Your task to perform on an android device: delete browsing data in the chrome app Image 0: 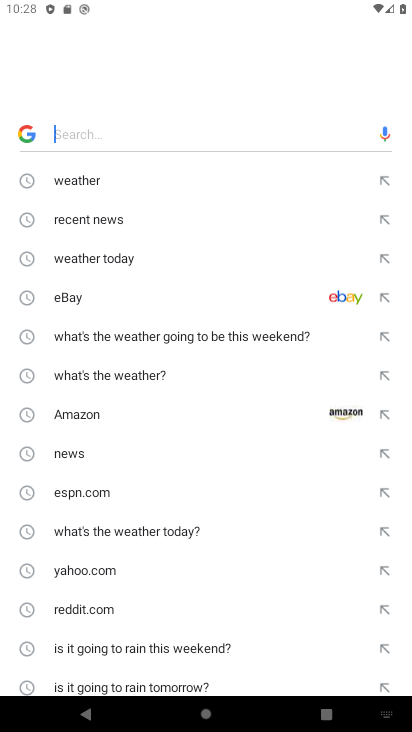
Step 0: press home button
Your task to perform on an android device: delete browsing data in the chrome app Image 1: 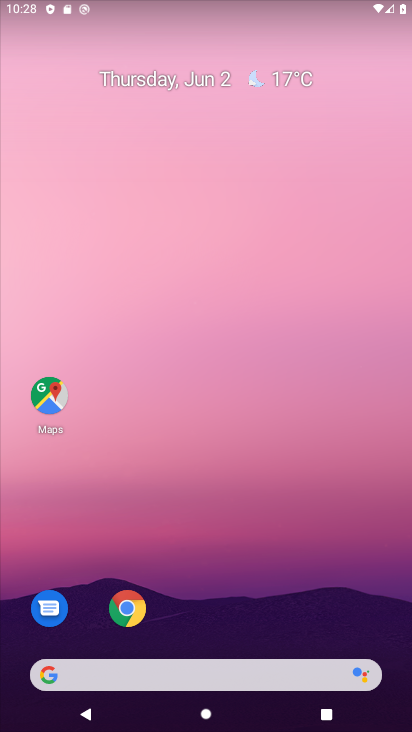
Step 1: click (128, 607)
Your task to perform on an android device: delete browsing data in the chrome app Image 2: 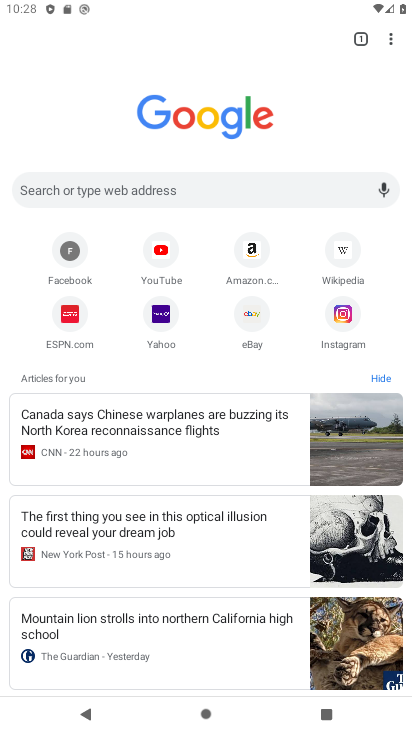
Step 2: click (386, 35)
Your task to perform on an android device: delete browsing data in the chrome app Image 3: 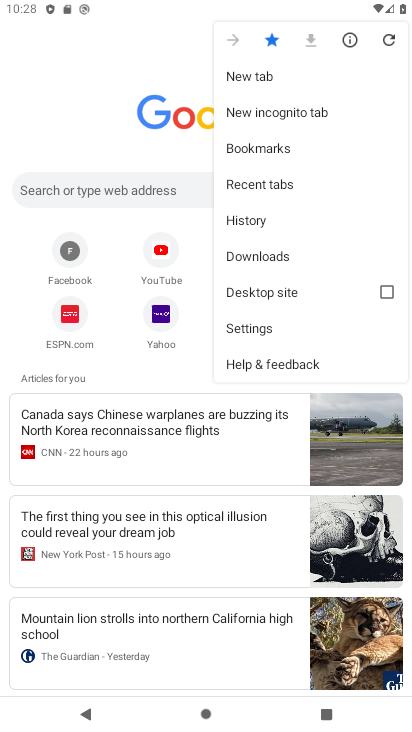
Step 3: click (238, 217)
Your task to perform on an android device: delete browsing data in the chrome app Image 4: 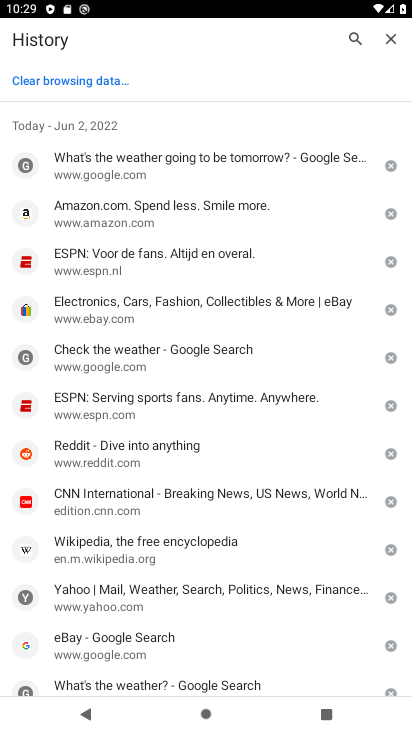
Step 4: click (84, 80)
Your task to perform on an android device: delete browsing data in the chrome app Image 5: 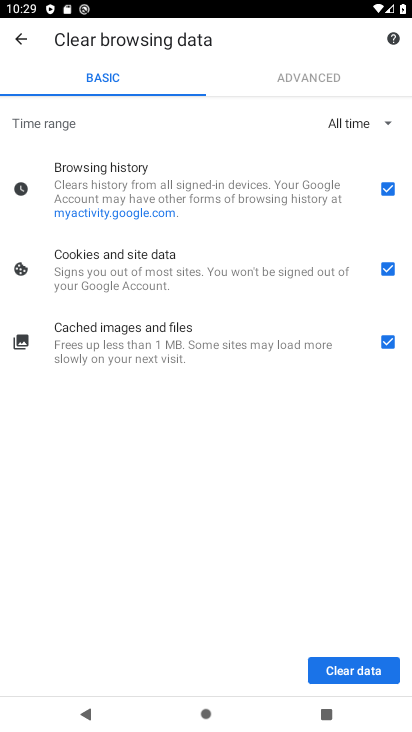
Step 5: click (352, 666)
Your task to perform on an android device: delete browsing data in the chrome app Image 6: 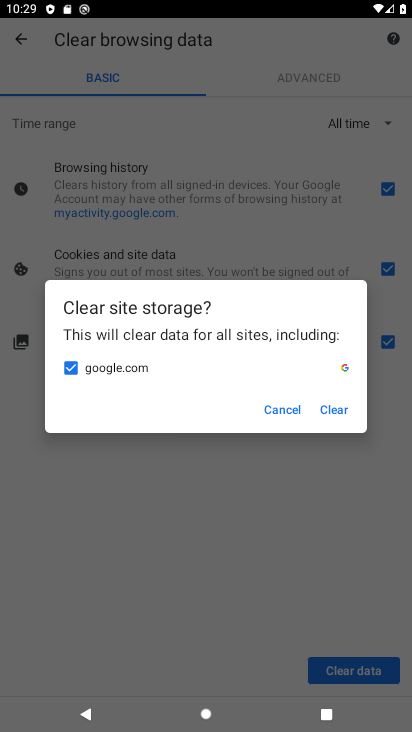
Step 6: click (330, 405)
Your task to perform on an android device: delete browsing data in the chrome app Image 7: 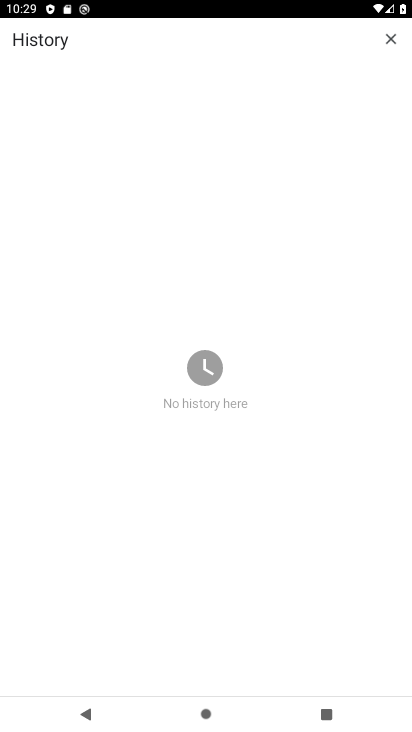
Step 7: click (394, 40)
Your task to perform on an android device: delete browsing data in the chrome app Image 8: 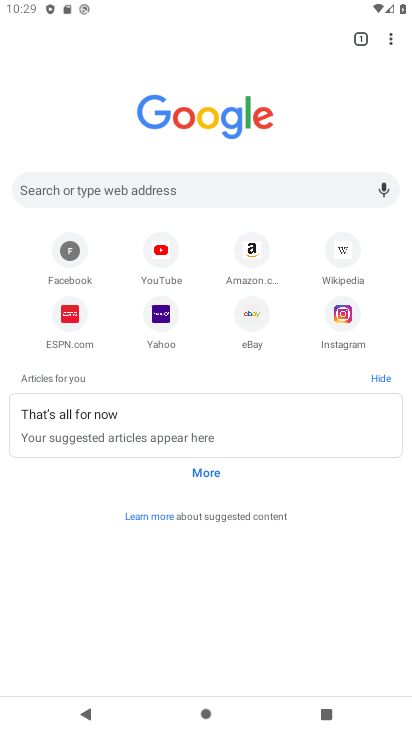
Step 8: task complete